Your task to perform on an android device: Show me productivity apps on the Play Store Image 0: 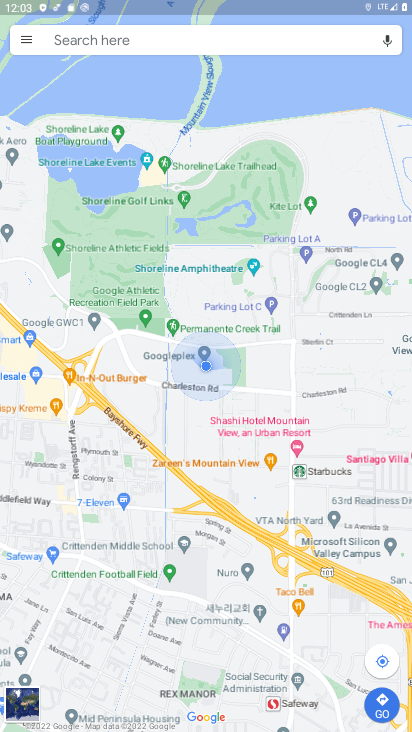
Step 0: press home button
Your task to perform on an android device: Show me productivity apps on the Play Store Image 1: 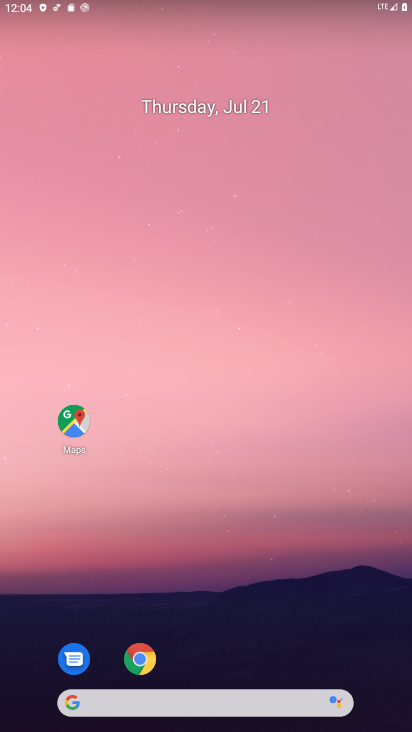
Step 1: drag from (223, 582) to (272, 3)
Your task to perform on an android device: Show me productivity apps on the Play Store Image 2: 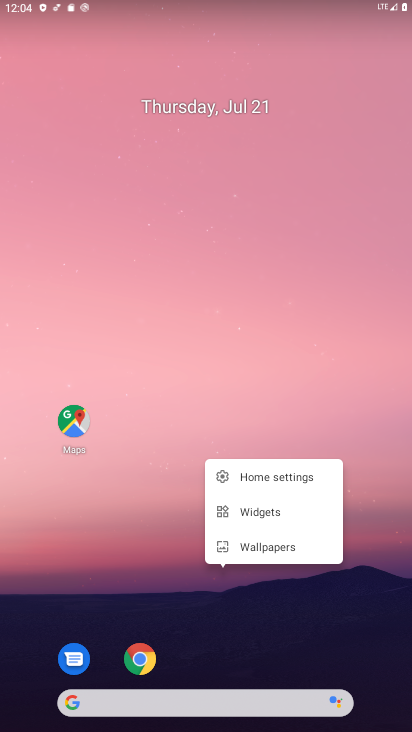
Step 2: click (220, 597)
Your task to perform on an android device: Show me productivity apps on the Play Store Image 3: 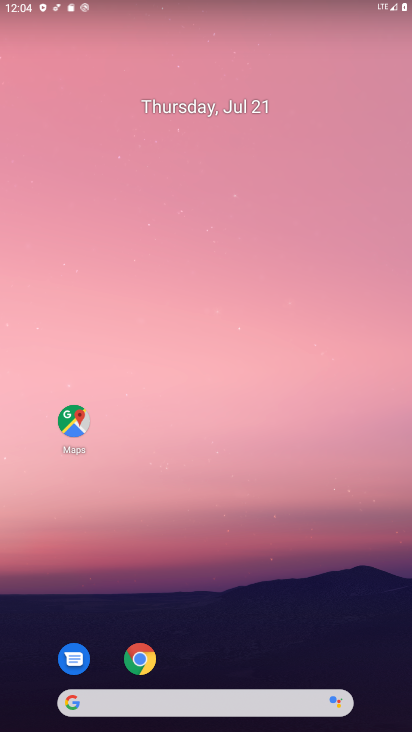
Step 3: drag from (189, 472) to (226, 42)
Your task to perform on an android device: Show me productivity apps on the Play Store Image 4: 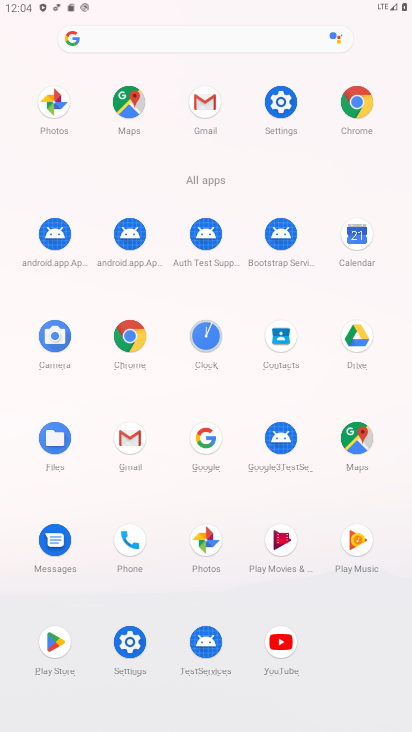
Step 4: click (51, 663)
Your task to perform on an android device: Show me productivity apps on the Play Store Image 5: 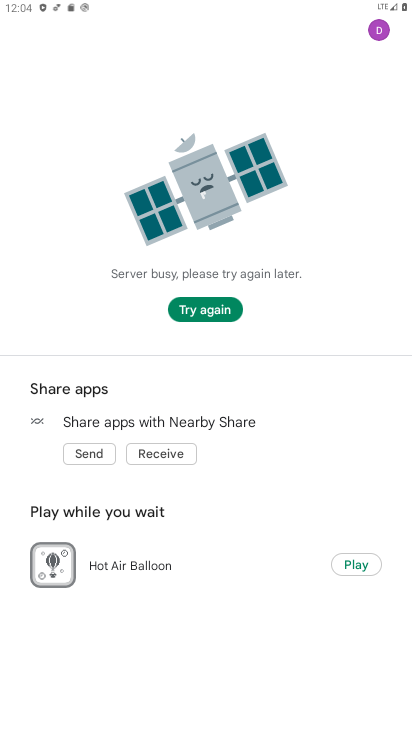
Step 5: task complete